Your task to perform on an android device: see sites visited before in the chrome app Image 0: 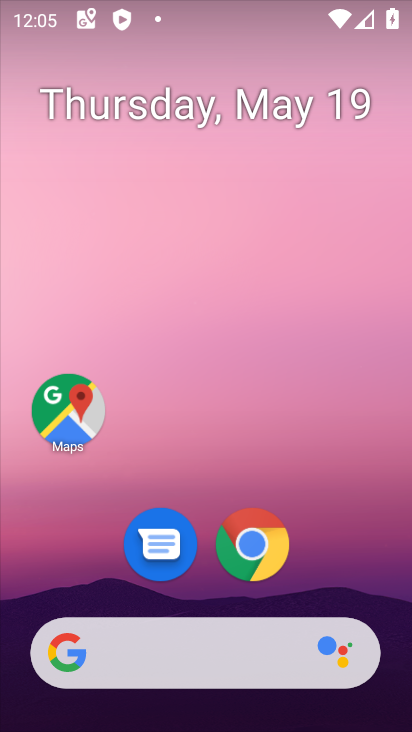
Step 0: drag from (218, 729) to (233, 108)
Your task to perform on an android device: see sites visited before in the chrome app Image 1: 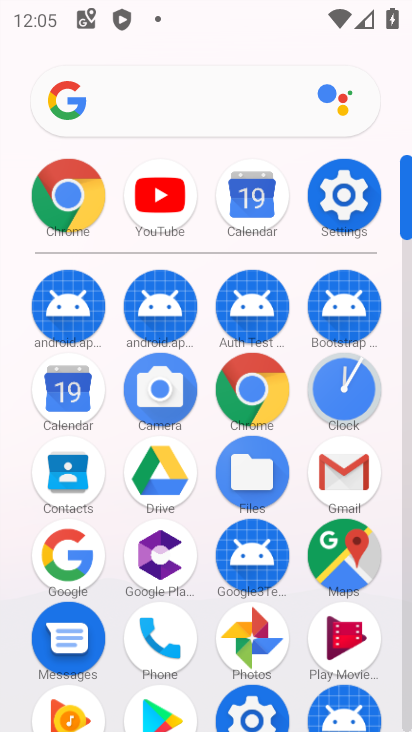
Step 1: click (260, 396)
Your task to perform on an android device: see sites visited before in the chrome app Image 2: 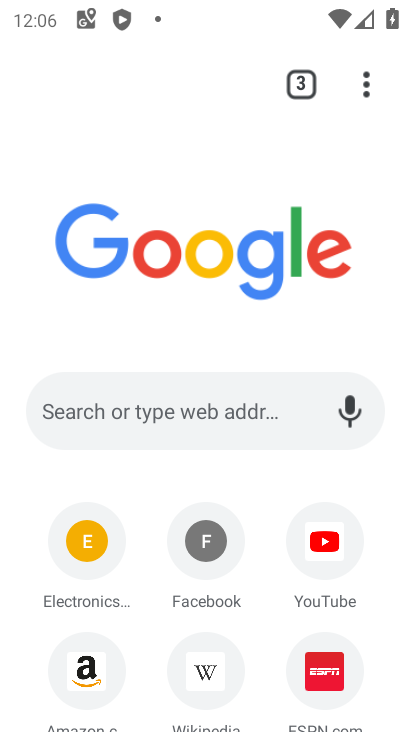
Step 2: click (370, 93)
Your task to perform on an android device: see sites visited before in the chrome app Image 3: 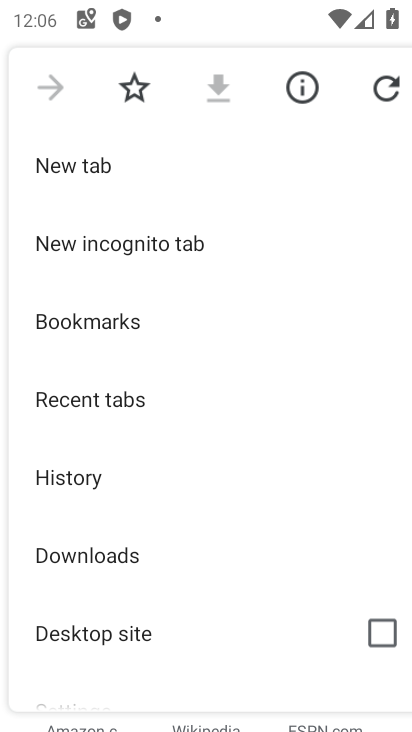
Step 3: click (140, 403)
Your task to perform on an android device: see sites visited before in the chrome app Image 4: 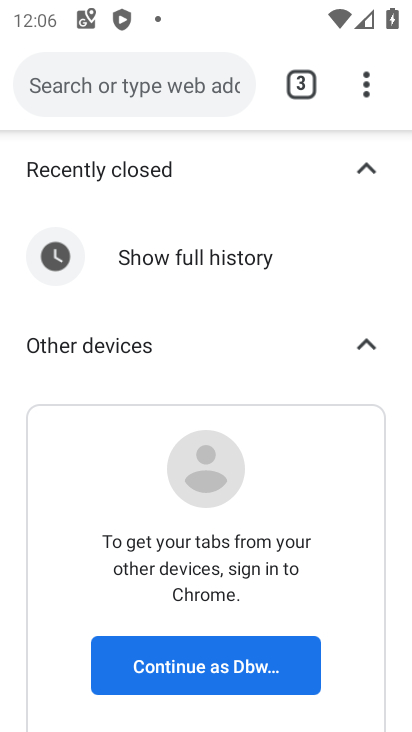
Step 4: task complete